Your task to perform on an android device: turn off wifi Image 0: 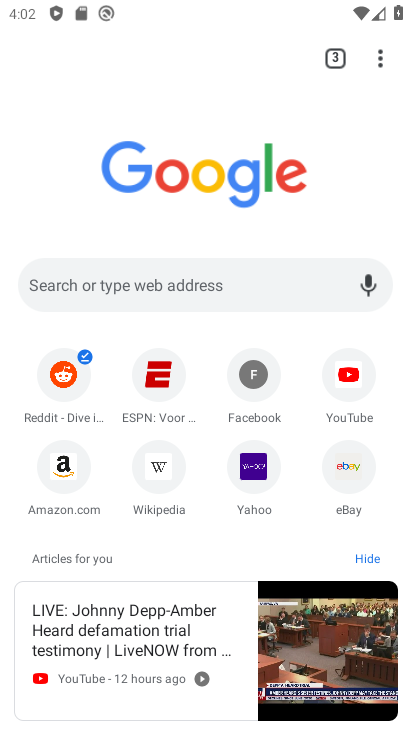
Step 0: drag from (51, 9) to (117, 474)
Your task to perform on an android device: turn off wifi Image 1: 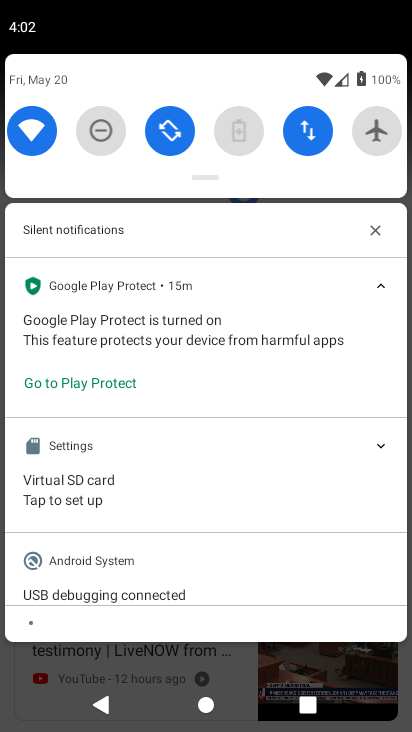
Step 1: click (25, 146)
Your task to perform on an android device: turn off wifi Image 2: 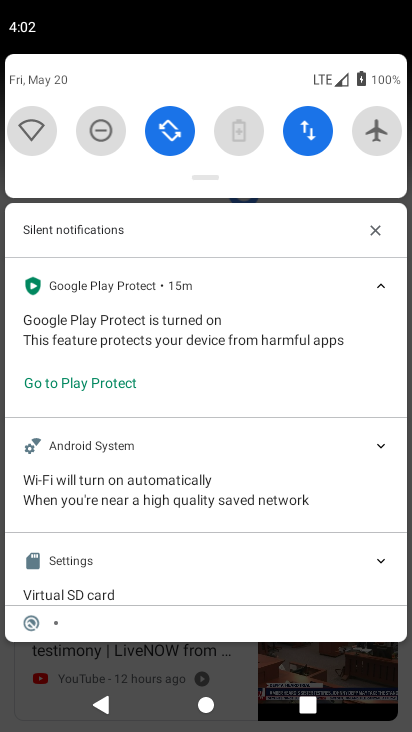
Step 2: task complete